Your task to perform on an android device: Open Maps and search for coffee Image 0: 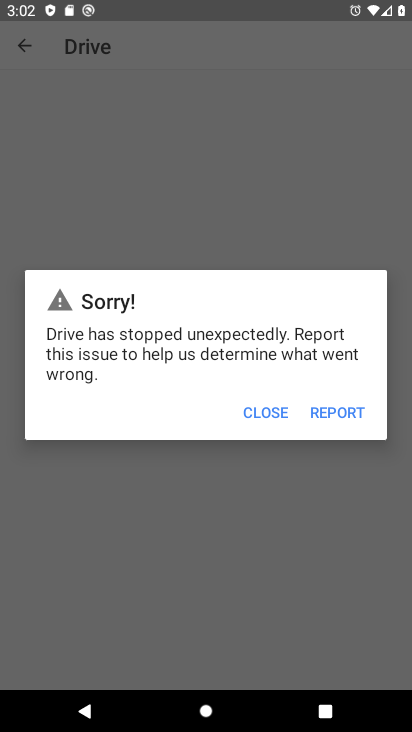
Step 0: press back button
Your task to perform on an android device: Open Maps and search for coffee Image 1: 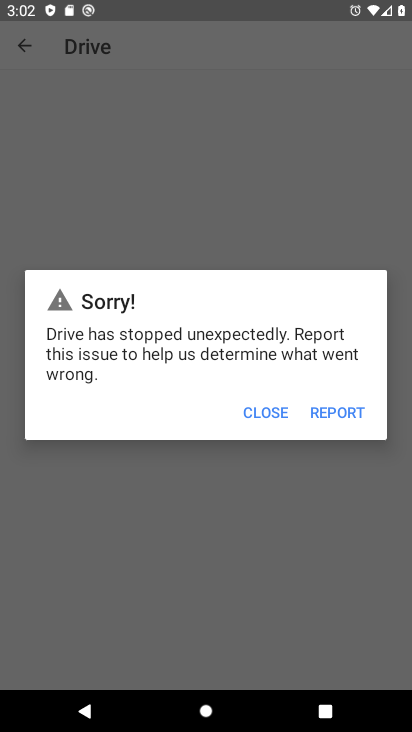
Step 1: press back button
Your task to perform on an android device: Open Maps and search for coffee Image 2: 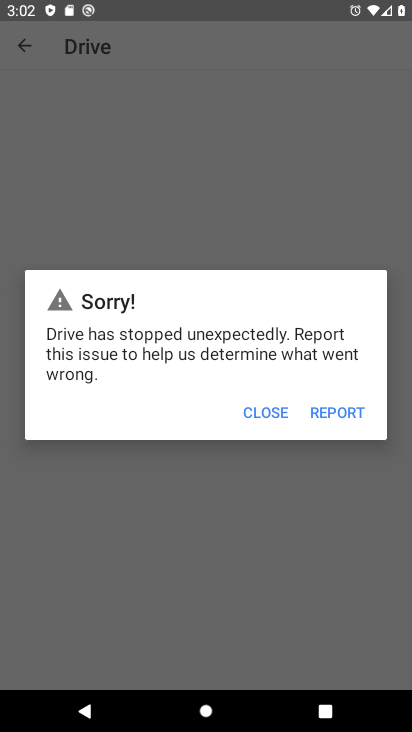
Step 2: press home button
Your task to perform on an android device: Open Maps and search for coffee Image 3: 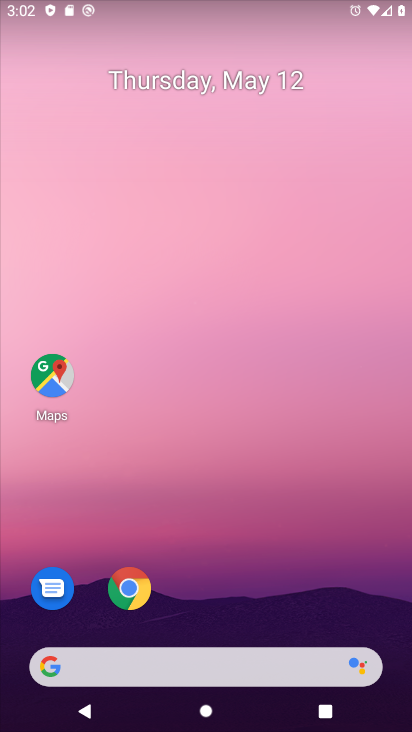
Step 3: drag from (236, 562) to (199, 22)
Your task to perform on an android device: Open Maps and search for coffee Image 4: 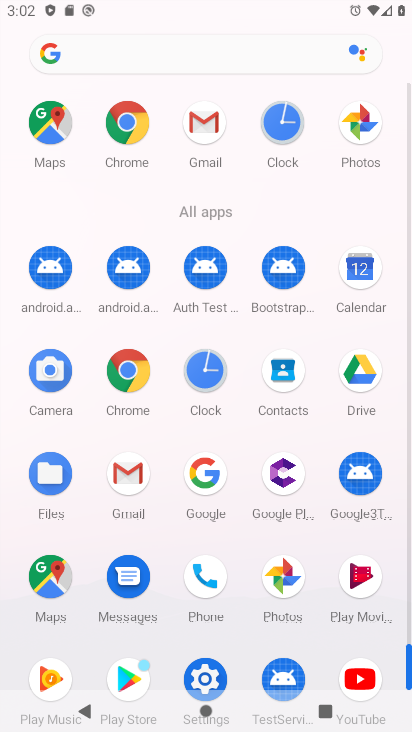
Step 4: click (46, 576)
Your task to perform on an android device: Open Maps and search for coffee Image 5: 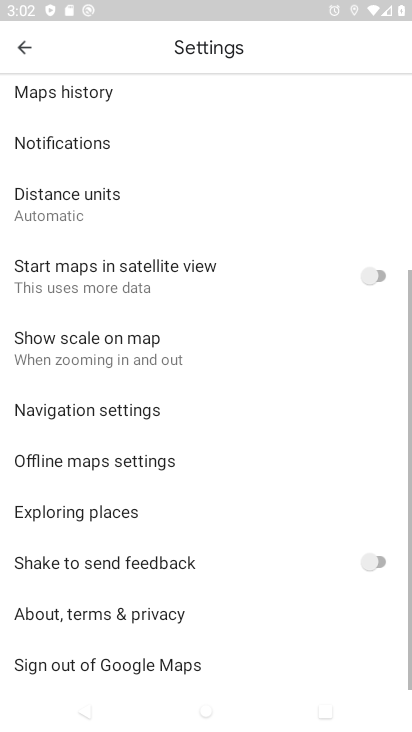
Step 5: click (8, 38)
Your task to perform on an android device: Open Maps and search for coffee Image 6: 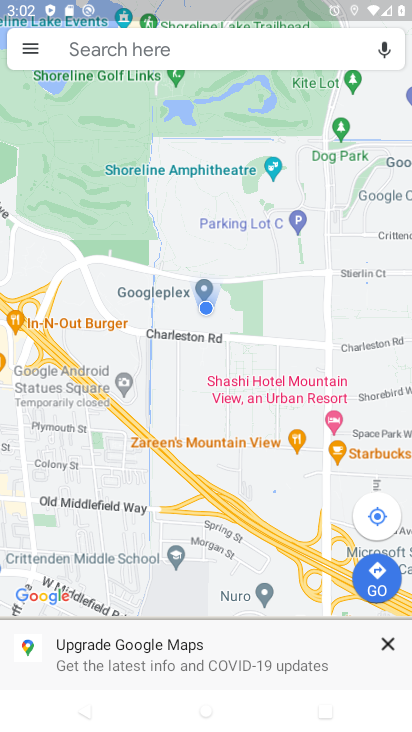
Step 6: click (207, 46)
Your task to perform on an android device: Open Maps and search for coffee Image 7: 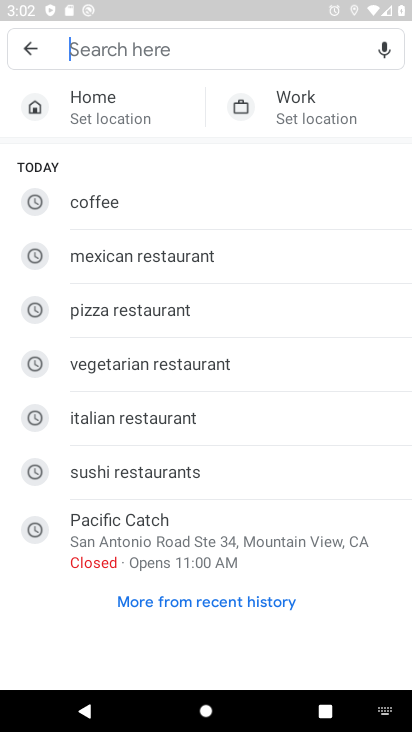
Step 7: click (141, 198)
Your task to perform on an android device: Open Maps and search for coffee Image 8: 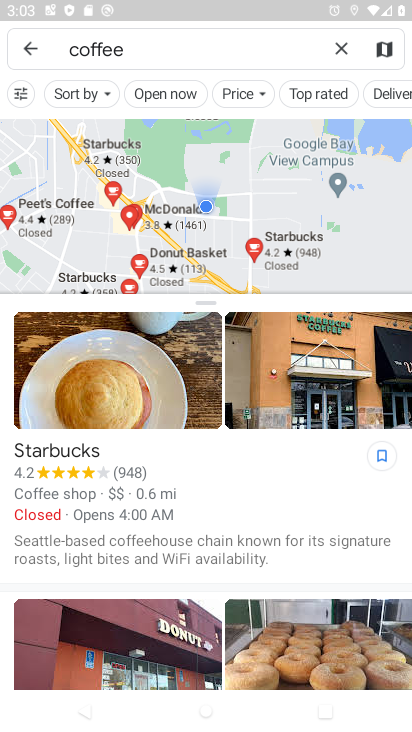
Step 8: task complete